Your task to perform on an android device: Open eBay Image 0: 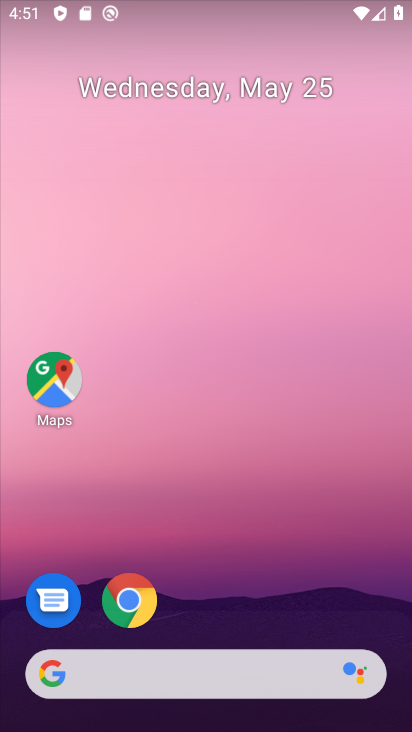
Step 0: click (132, 597)
Your task to perform on an android device: Open eBay Image 1: 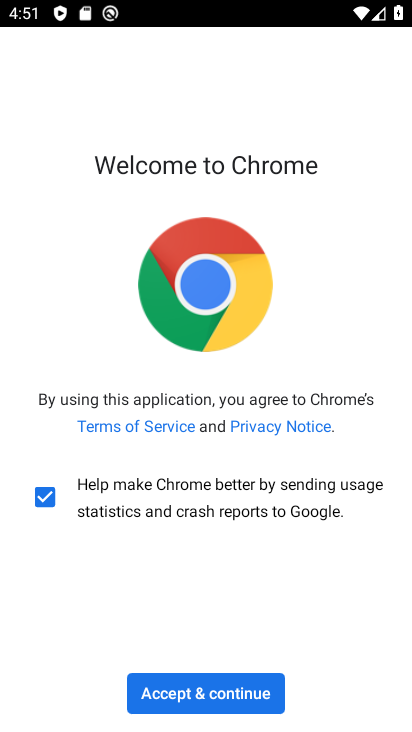
Step 1: click (231, 694)
Your task to perform on an android device: Open eBay Image 2: 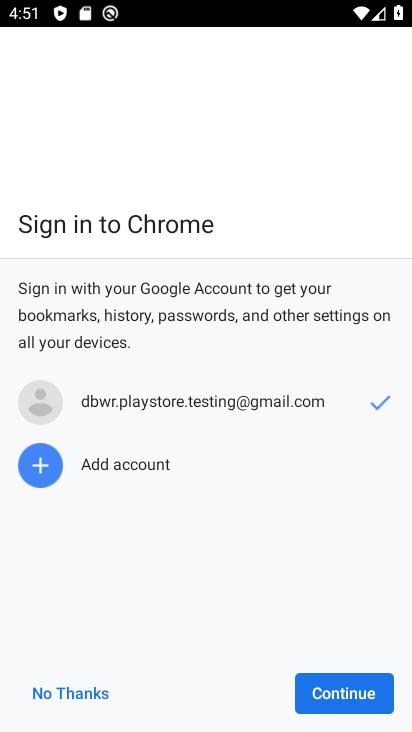
Step 2: click (315, 693)
Your task to perform on an android device: Open eBay Image 3: 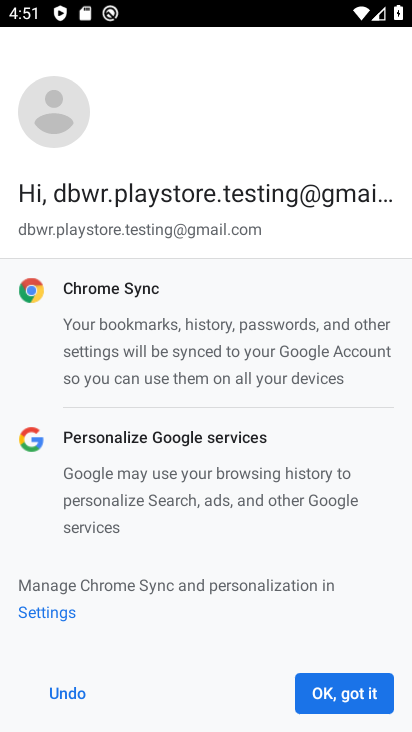
Step 3: click (354, 710)
Your task to perform on an android device: Open eBay Image 4: 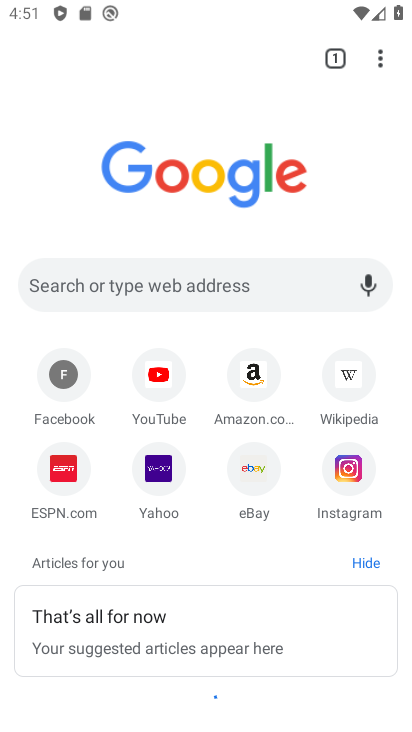
Step 4: click (255, 478)
Your task to perform on an android device: Open eBay Image 5: 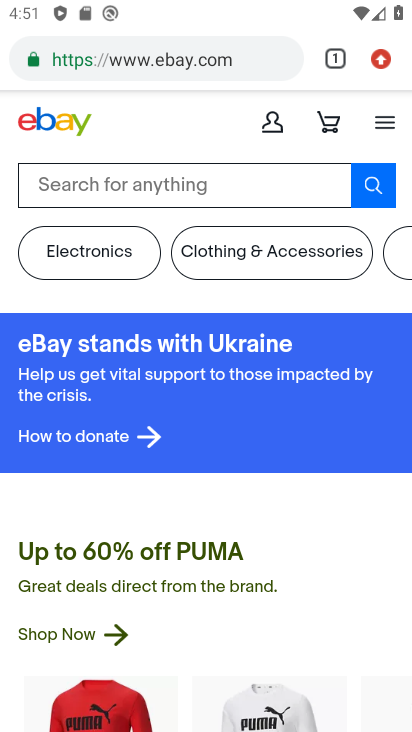
Step 5: task complete